Your task to perform on an android device: Is it going to rain today? Image 0: 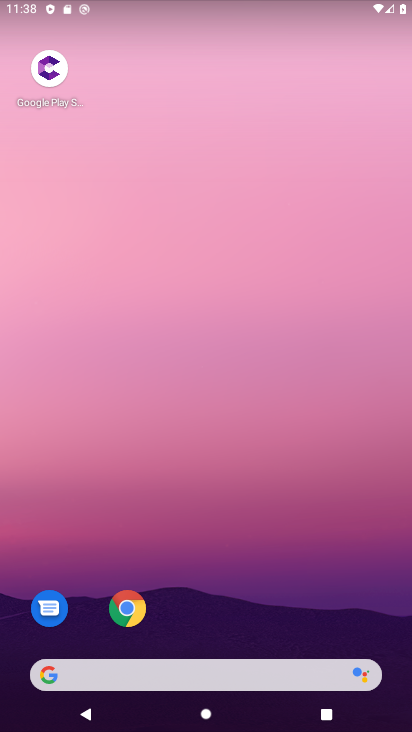
Step 0: drag from (307, 597) to (277, 3)
Your task to perform on an android device: Is it going to rain today? Image 1: 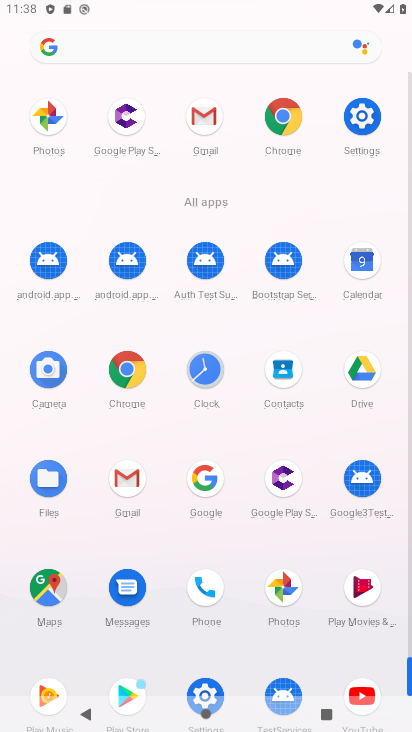
Step 1: drag from (22, 557) to (19, 219)
Your task to perform on an android device: Is it going to rain today? Image 2: 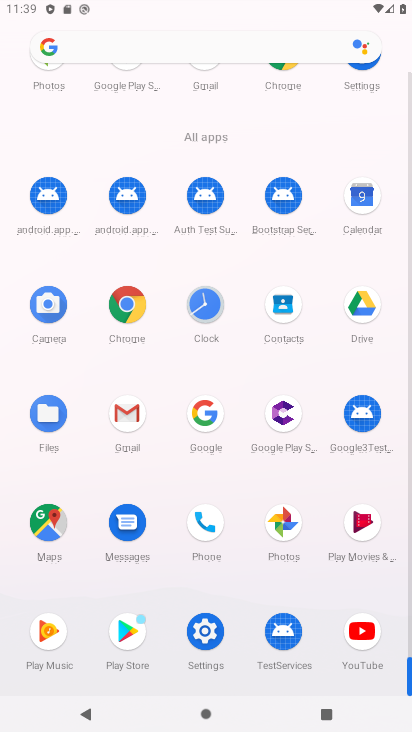
Step 2: drag from (6, 491) to (18, 301)
Your task to perform on an android device: Is it going to rain today? Image 3: 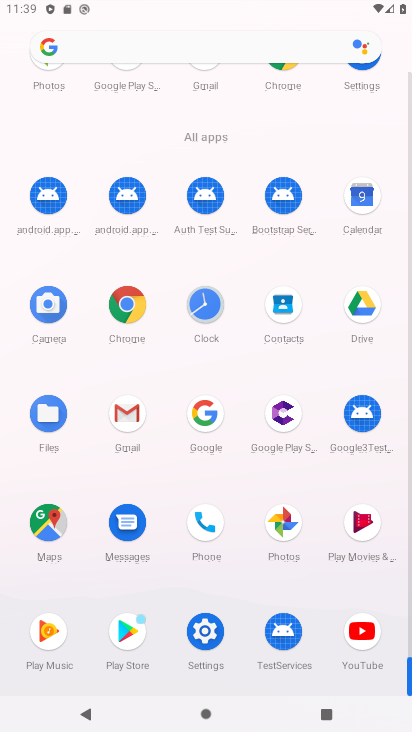
Step 3: click (125, 302)
Your task to perform on an android device: Is it going to rain today? Image 4: 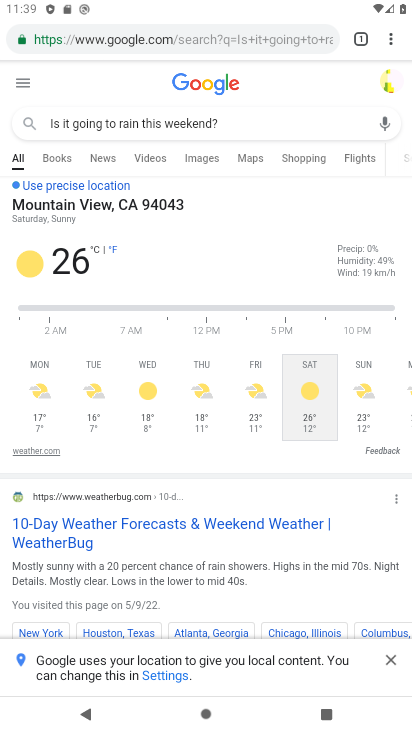
Step 4: click (246, 36)
Your task to perform on an android device: Is it going to rain today? Image 5: 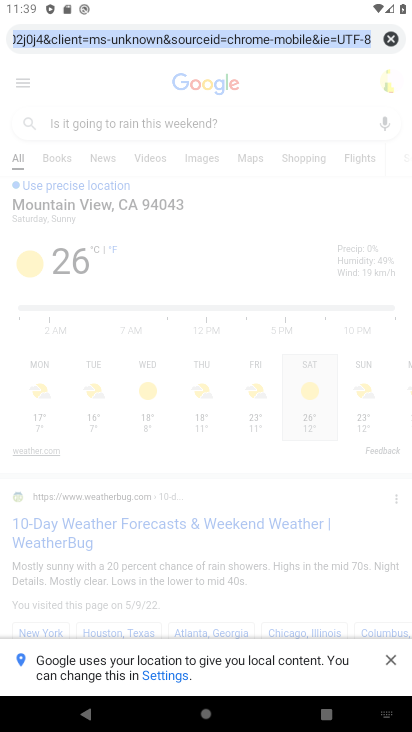
Step 5: click (385, 35)
Your task to perform on an android device: Is it going to rain today? Image 6: 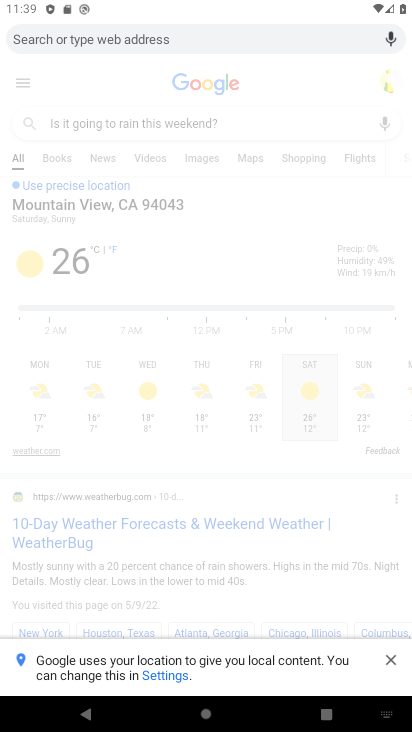
Step 6: type "Is it going to rain today?"
Your task to perform on an android device: Is it going to rain today? Image 7: 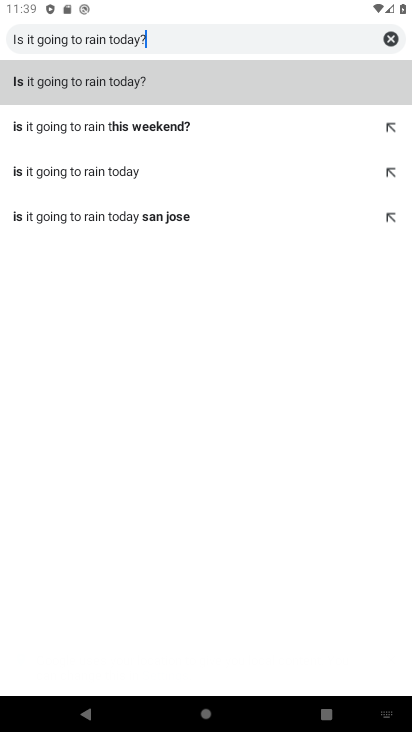
Step 7: type ""
Your task to perform on an android device: Is it going to rain today? Image 8: 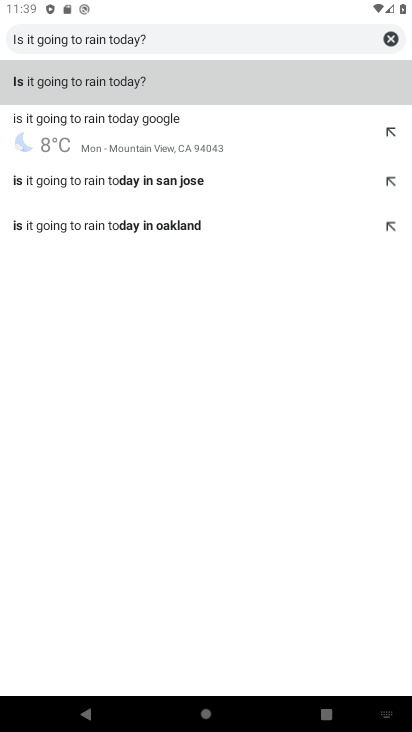
Step 8: click (111, 89)
Your task to perform on an android device: Is it going to rain today? Image 9: 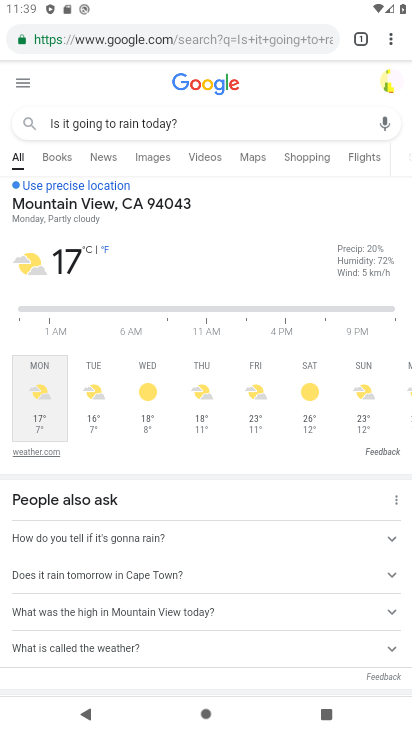
Step 9: task complete